Your task to perform on an android device: change the upload size in google photos Image 0: 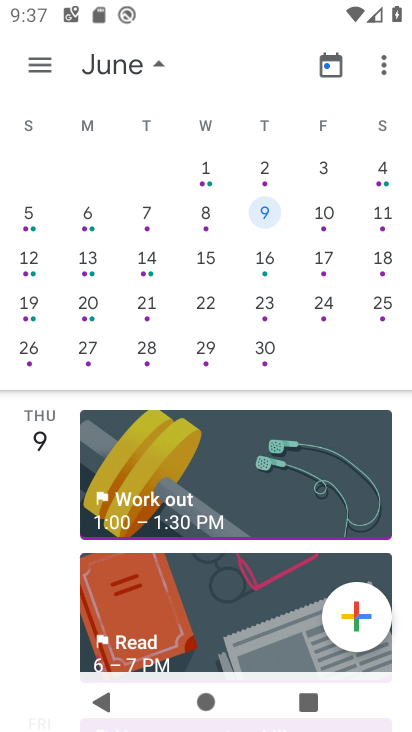
Step 0: press home button
Your task to perform on an android device: change the upload size in google photos Image 1: 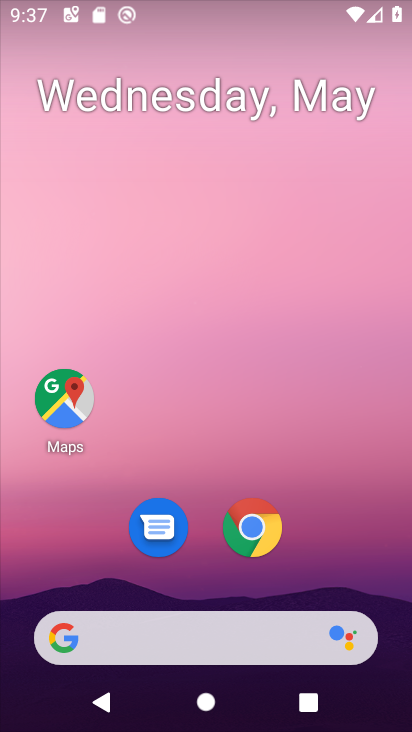
Step 1: drag from (190, 581) to (211, 132)
Your task to perform on an android device: change the upload size in google photos Image 2: 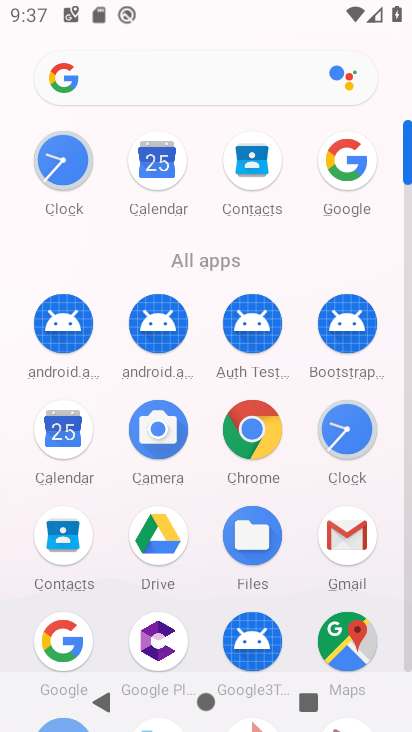
Step 2: drag from (200, 559) to (209, 279)
Your task to perform on an android device: change the upload size in google photos Image 3: 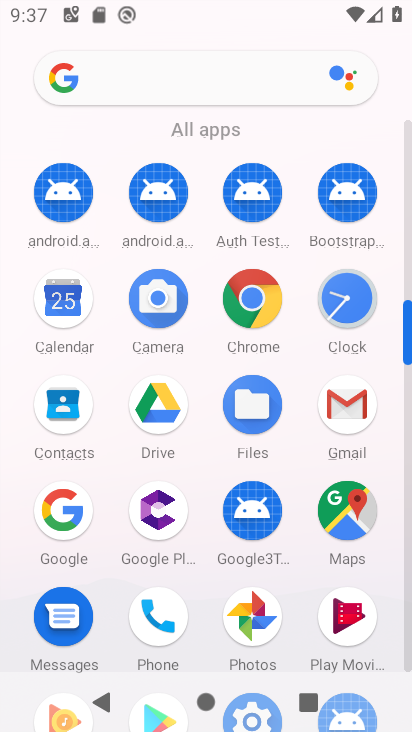
Step 3: click (247, 617)
Your task to perform on an android device: change the upload size in google photos Image 4: 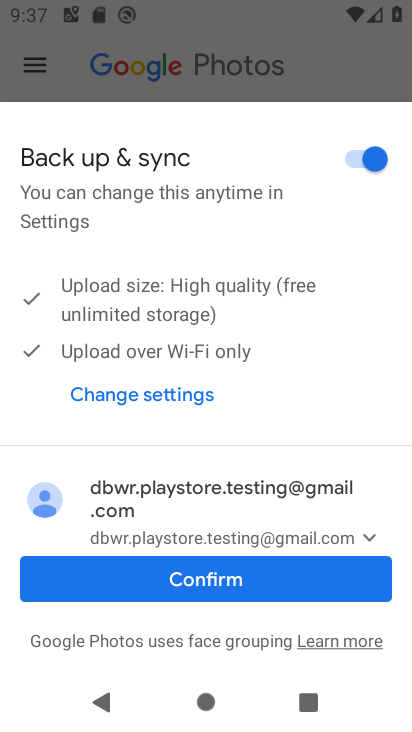
Step 4: click (203, 569)
Your task to perform on an android device: change the upload size in google photos Image 5: 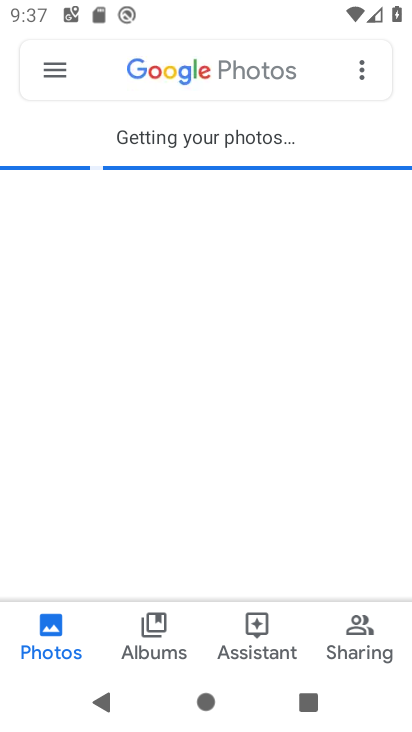
Step 5: click (38, 59)
Your task to perform on an android device: change the upload size in google photos Image 6: 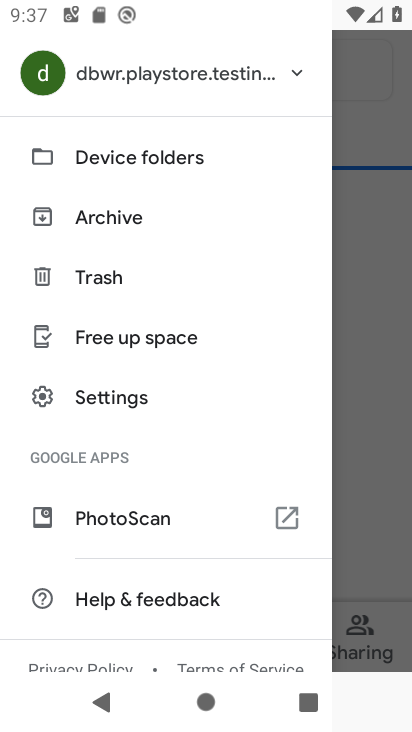
Step 6: drag from (137, 603) to (148, 361)
Your task to perform on an android device: change the upload size in google photos Image 7: 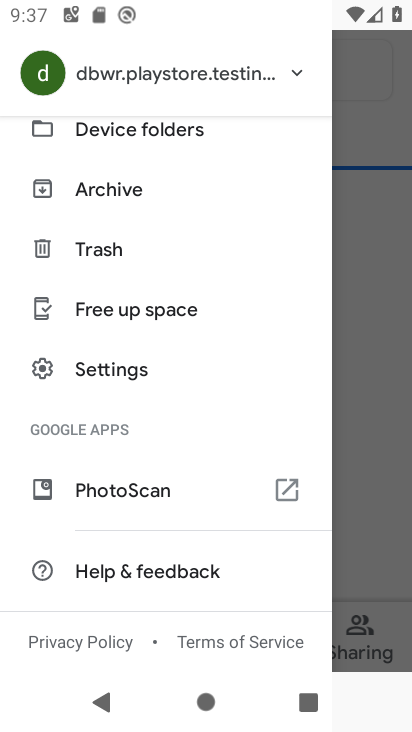
Step 7: click (143, 370)
Your task to perform on an android device: change the upload size in google photos Image 8: 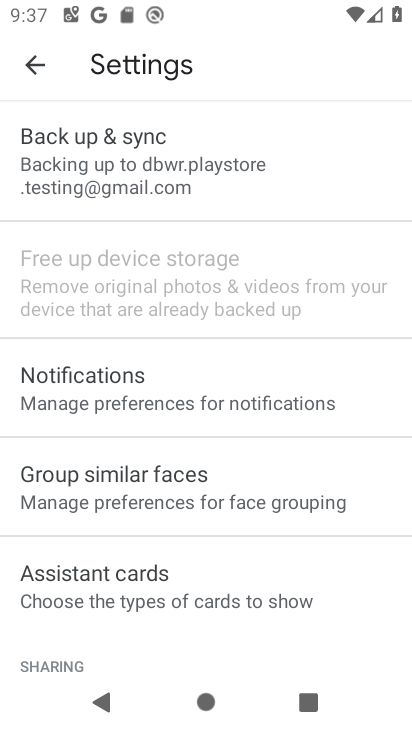
Step 8: click (192, 557)
Your task to perform on an android device: change the upload size in google photos Image 9: 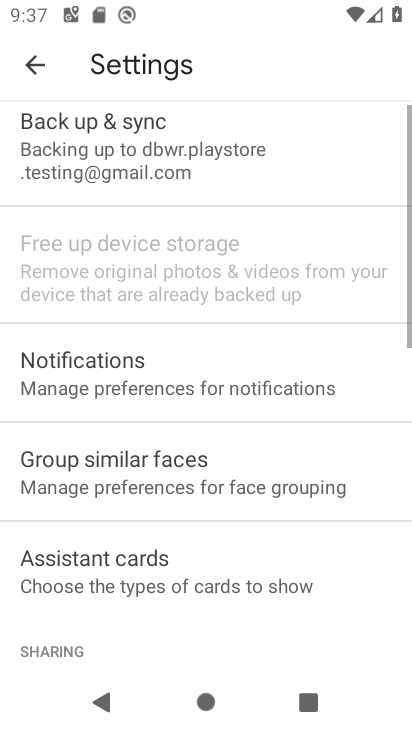
Step 9: click (142, 169)
Your task to perform on an android device: change the upload size in google photos Image 10: 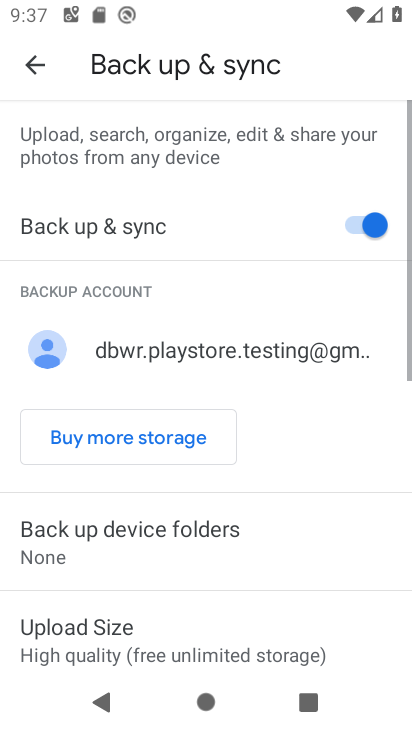
Step 10: click (117, 633)
Your task to perform on an android device: change the upload size in google photos Image 11: 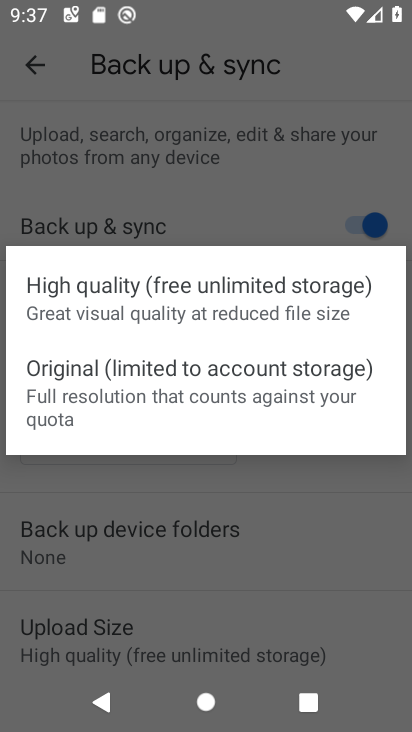
Step 11: click (99, 398)
Your task to perform on an android device: change the upload size in google photos Image 12: 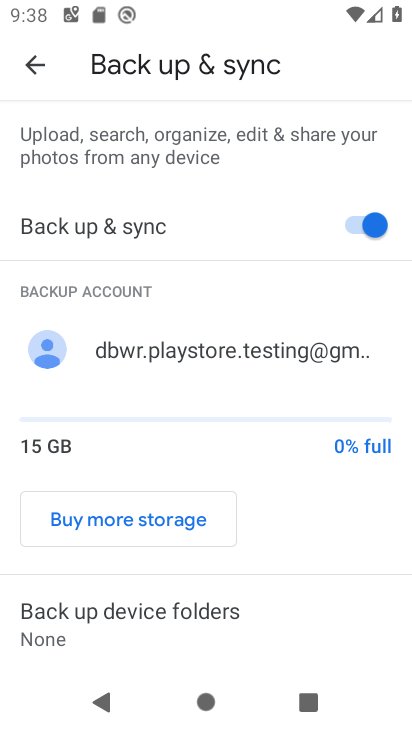
Step 12: task complete